Your task to perform on an android device: Open Google Chrome and open the bookmarks view Image 0: 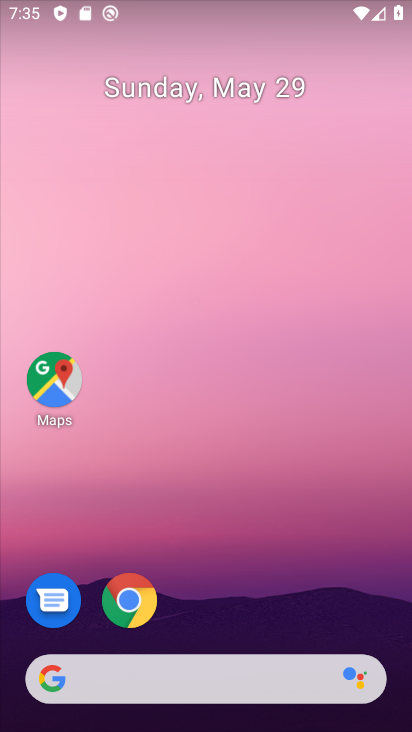
Step 0: click (144, 609)
Your task to perform on an android device: Open Google Chrome and open the bookmarks view Image 1: 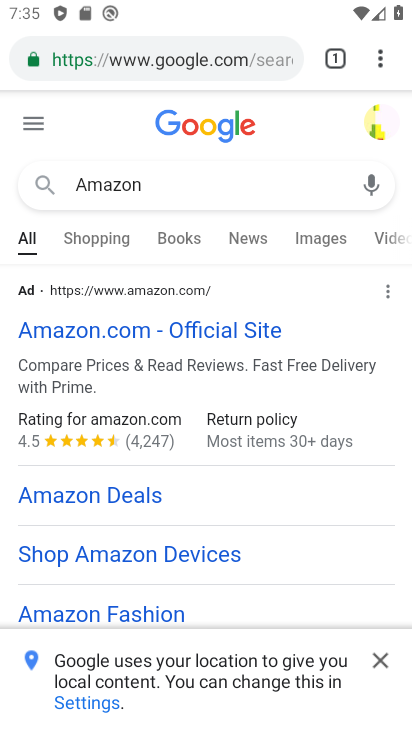
Step 1: click (379, 53)
Your task to perform on an android device: Open Google Chrome and open the bookmarks view Image 2: 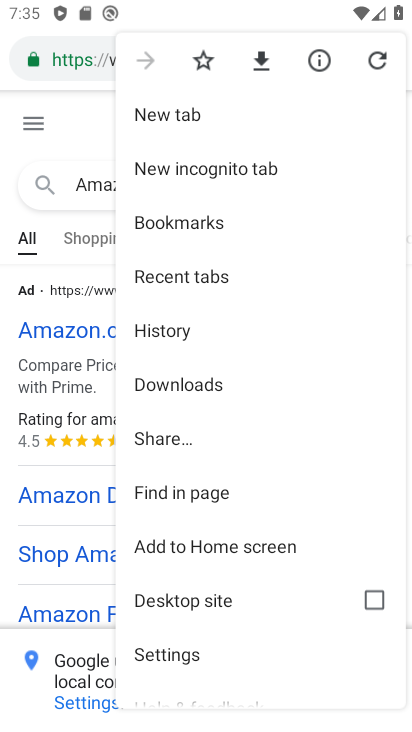
Step 2: click (225, 219)
Your task to perform on an android device: Open Google Chrome and open the bookmarks view Image 3: 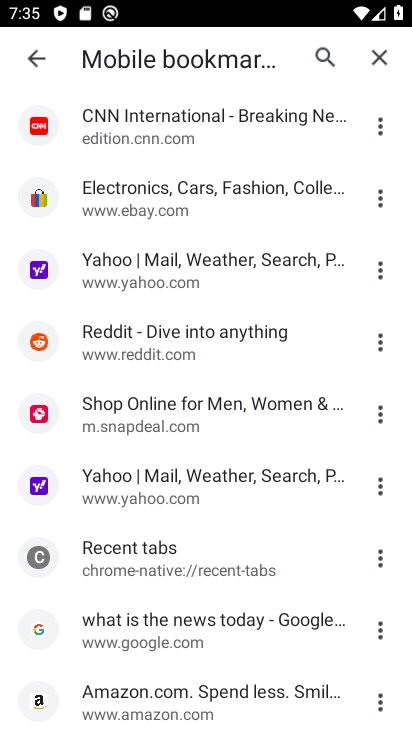
Step 3: task complete